Your task to perform on an android device: move an email to a new category in the gmail app Image 0: 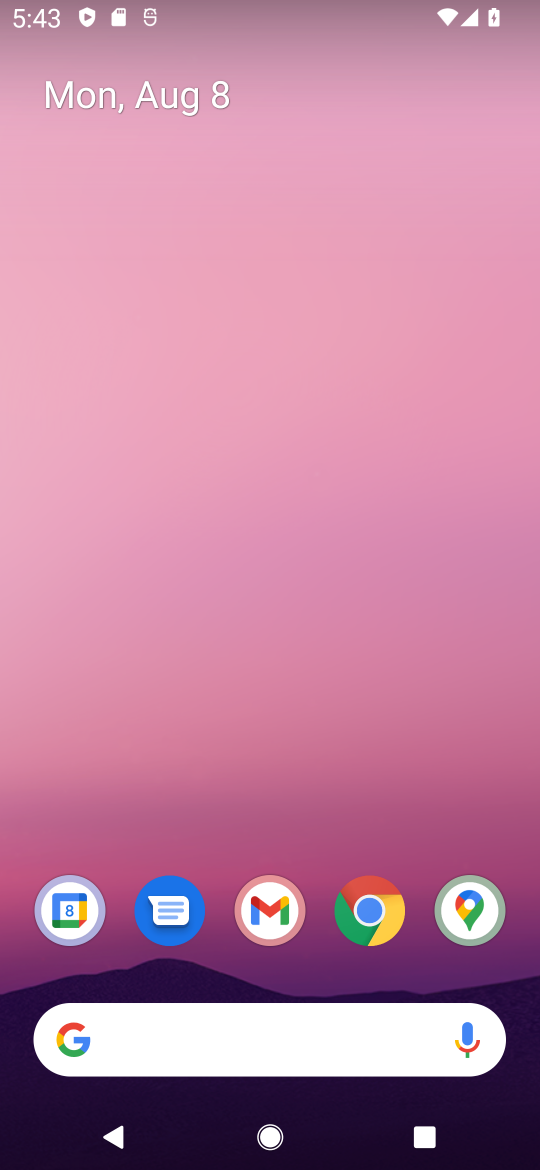
Step 0: drag from (267, 1032) to (269, 541)
Your task to perform on an android device: move an email to a new category in the gmail app Image 1: 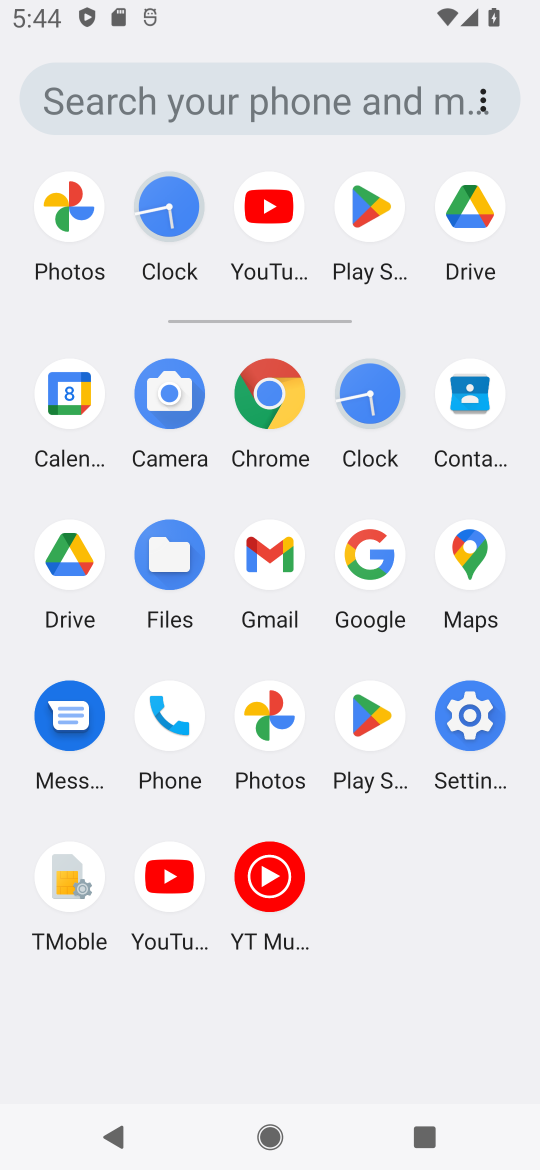
Step 1: click (279, 556)
Your task to perform on an android device: move an email to a new category in the gmail app Image 2: 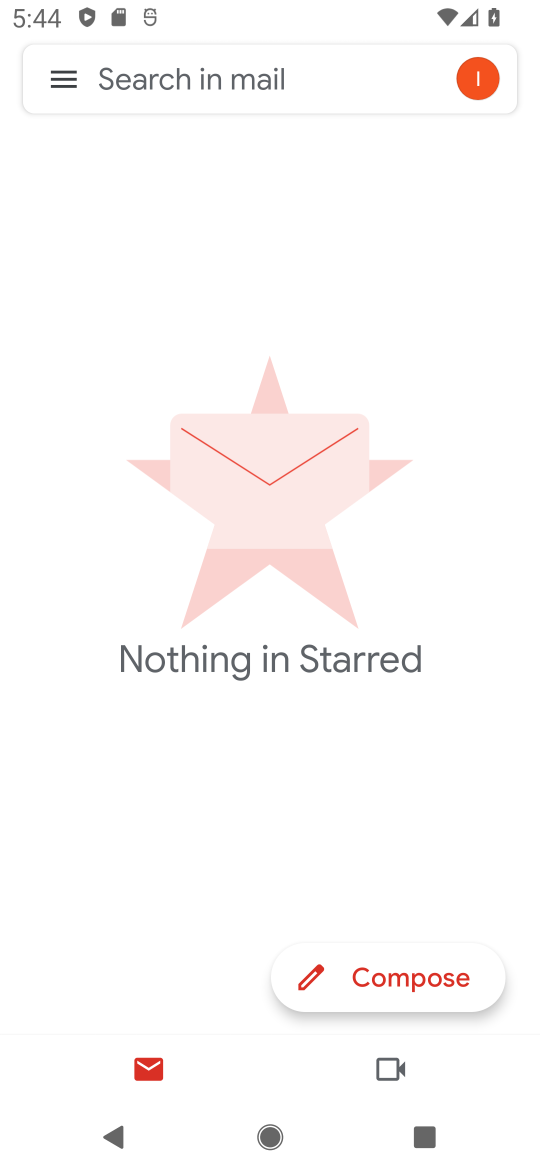
Step 2: click (63, 88)
Your task to perform on an android device: move an email to a new category in the gmail app Image 3: 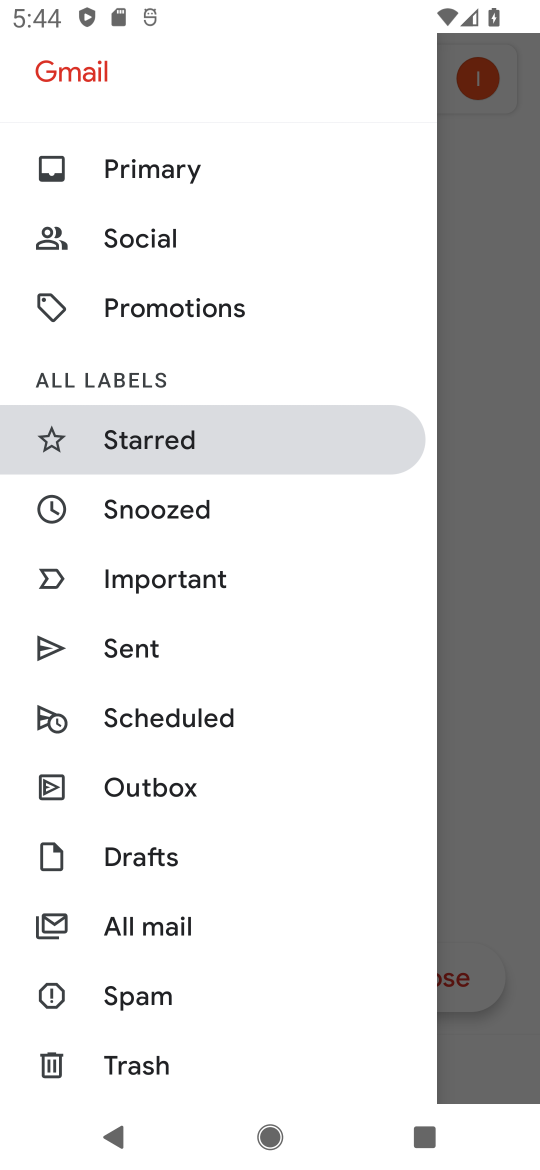
Step 3: click (193, 529)
Your task to perform on an android device: move an email to a new category in the gmail app Image 4: 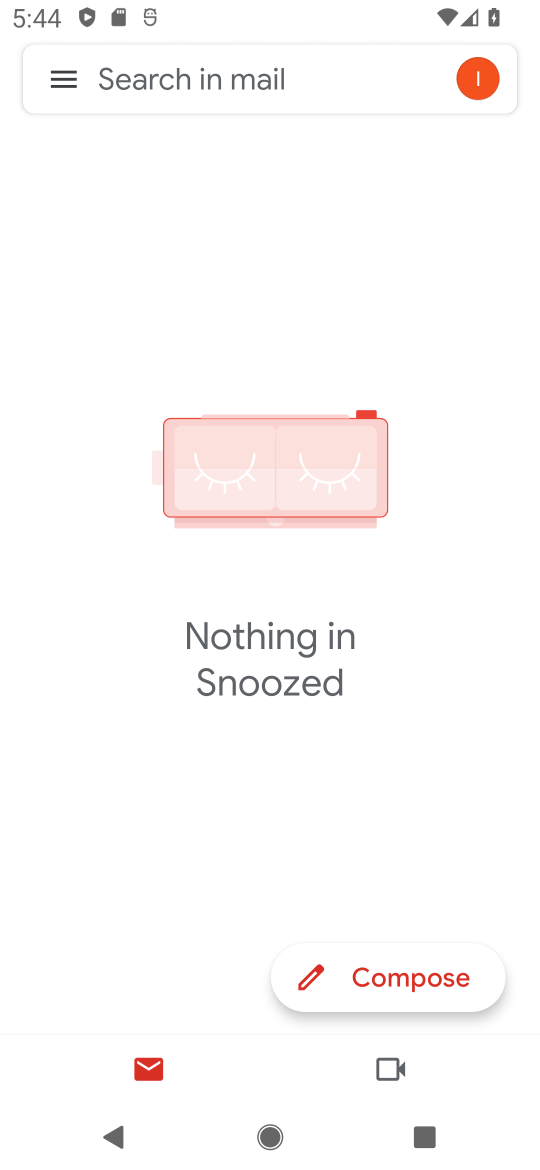
Step 4: click (45, 72)
Your task to perform on an android device: move an email to a new category in the gmail app Image 5: 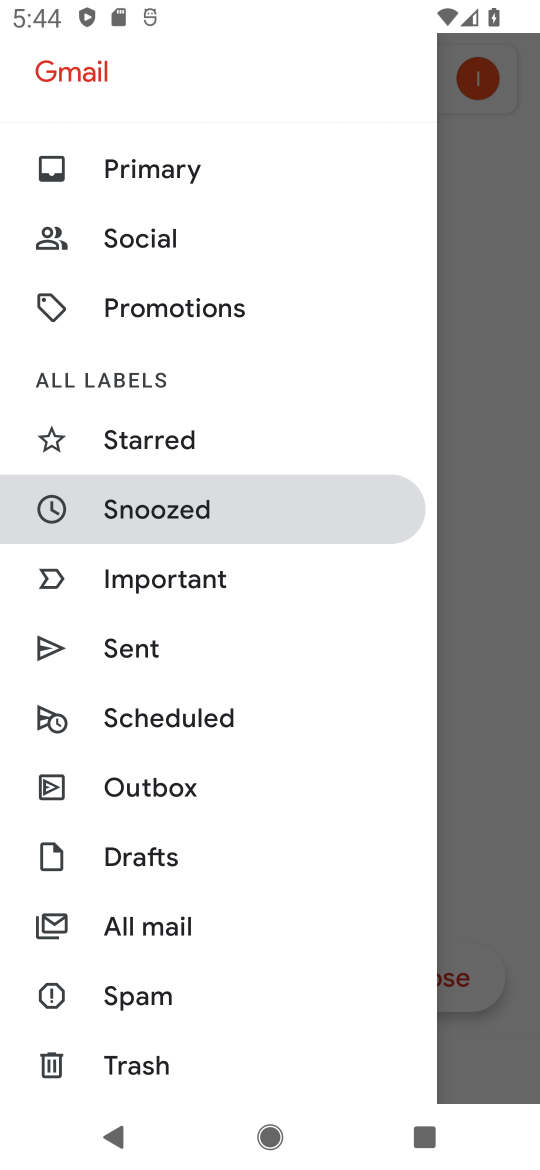
Step 5: click (171, 575)
Your task to perform on an android device: move an email to a new category in the gmail app Image 6: 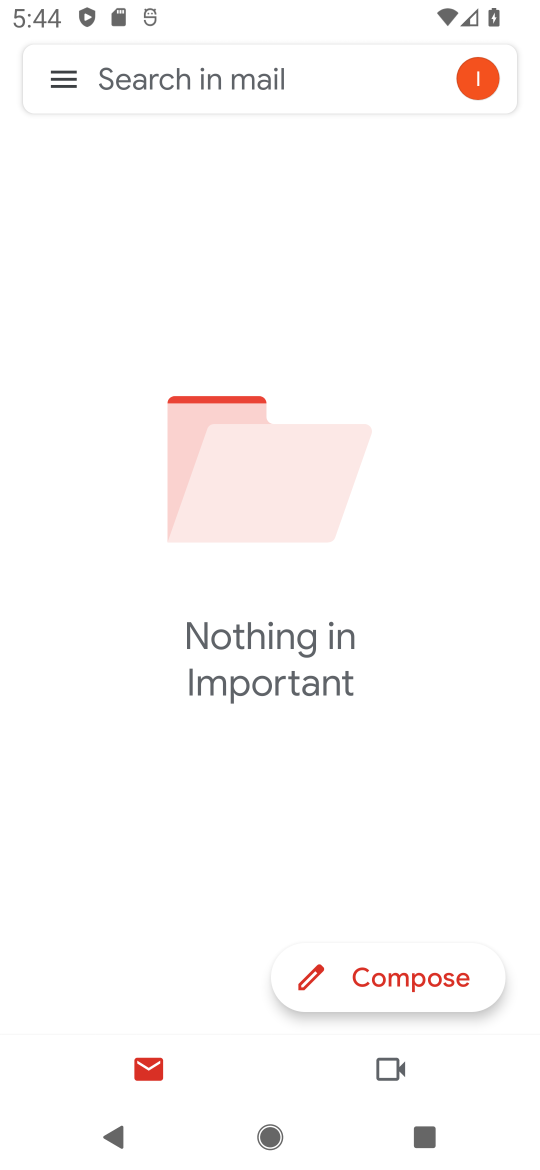
Step 6: click (41, 80)
Your task to perform on an android device: move an email to a new category in the gmail app Image 7: 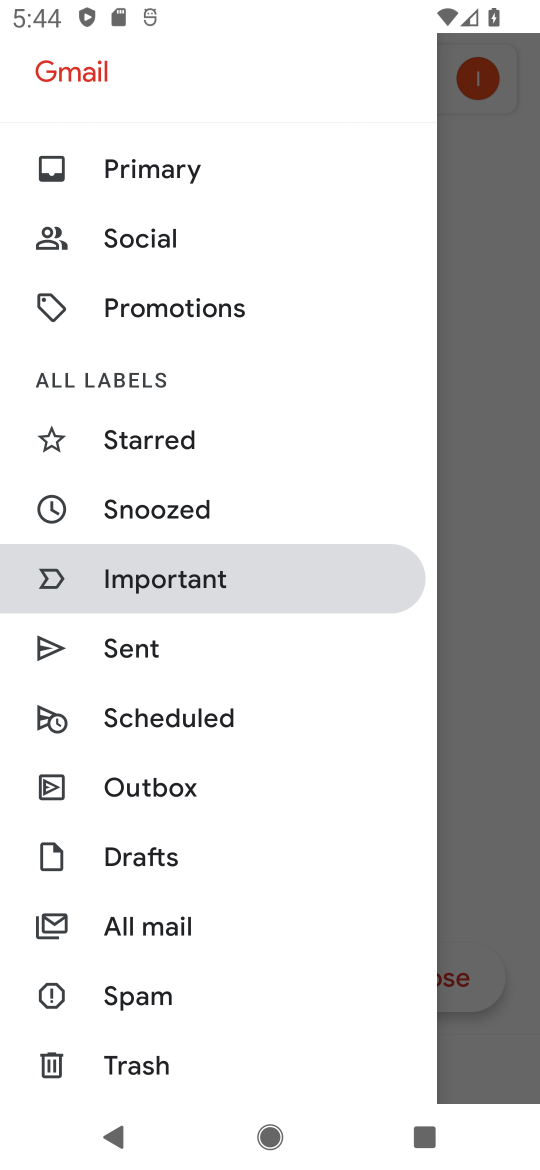
Step 7: click (136, 644)
Your task to perform on an android device: move an email to a new category in the gmail app Image 8: 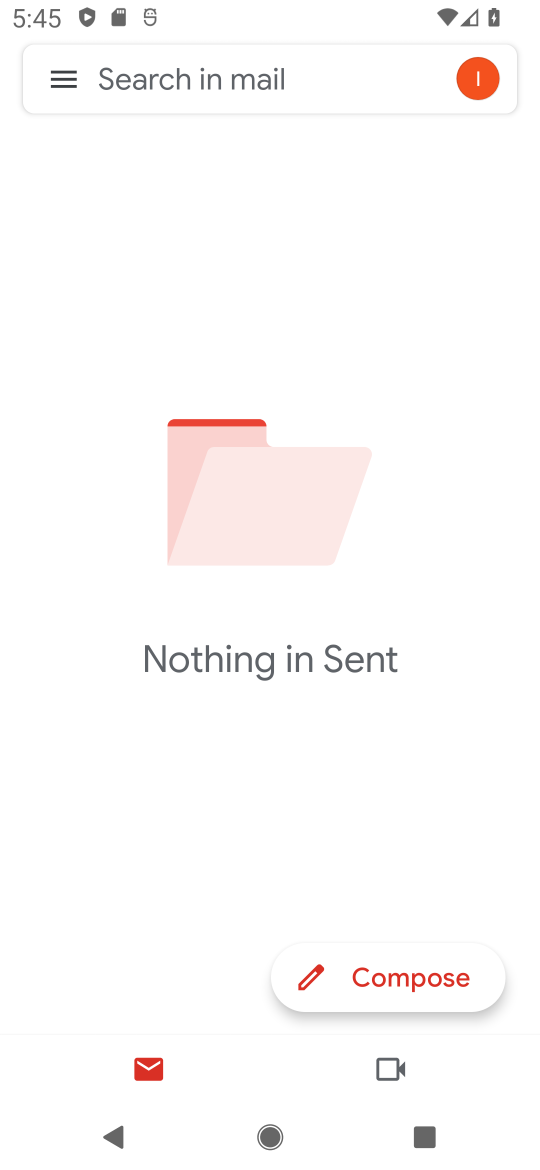
Step 8: task complete